Your task to perform on an android device: move an email to a new category in the gmail app Image 0: 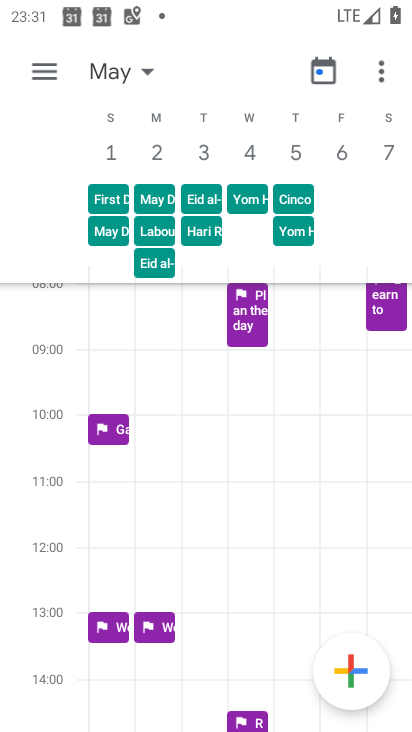
Step 0: press home button
Your task to perform on an android device: move an email to a new category in the gmail app Image 1: 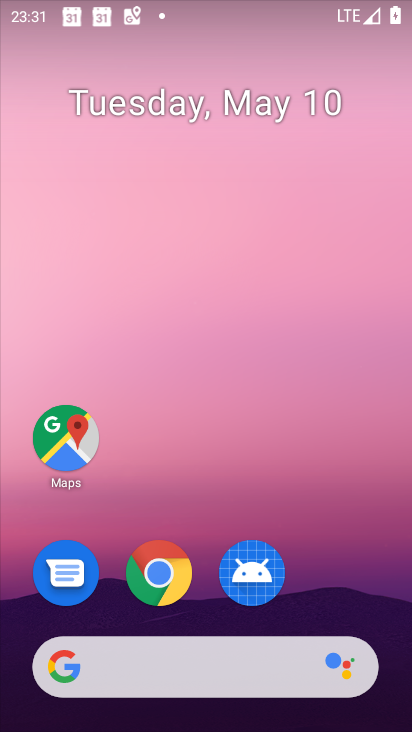
Step 1: drag from (336, 519) to (242, 73)
Your task to perform on an android device: move an email to a new category in the gmail app Image 2: 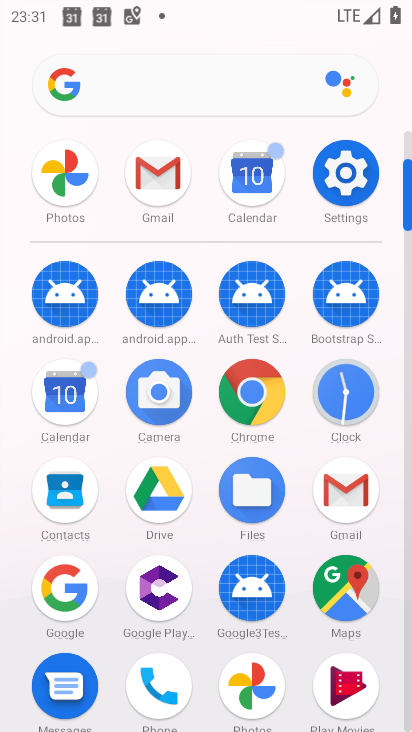
Step 2: click (153, 172)
Your task to perform on an android device: move an email to a new category in the gmail app Image 3: 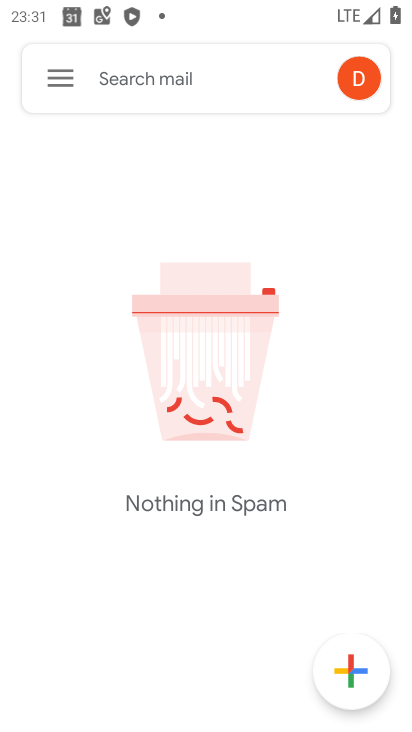
Step 3: click (64, 77)
Your task to perform on an android device: move an email to a new category in the gmail app Image 4: 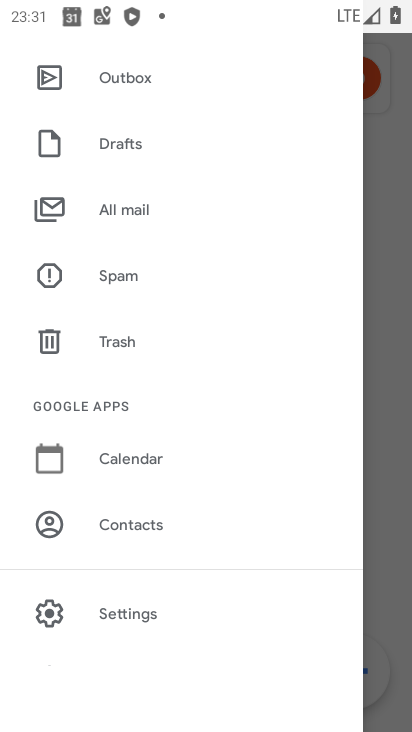
Step 4: click (137, 204)
Your task to perform on an android device: move an email to a new category in the gmail app Image 5: 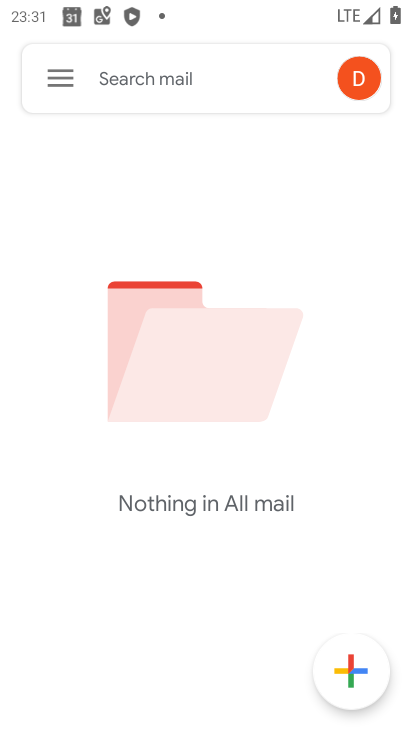
Step 5: task complete